Your task to perform on an android device: empty trash in the gmail app Image 0: 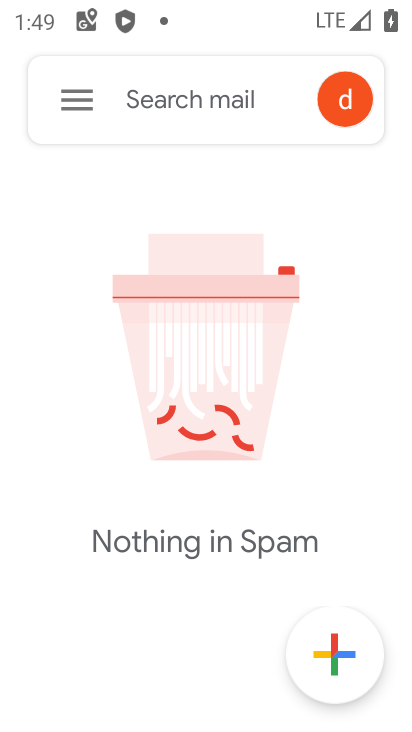
Step 0: press home button
Your task to perform on an android device: empty trash in the gmail app Image 1: 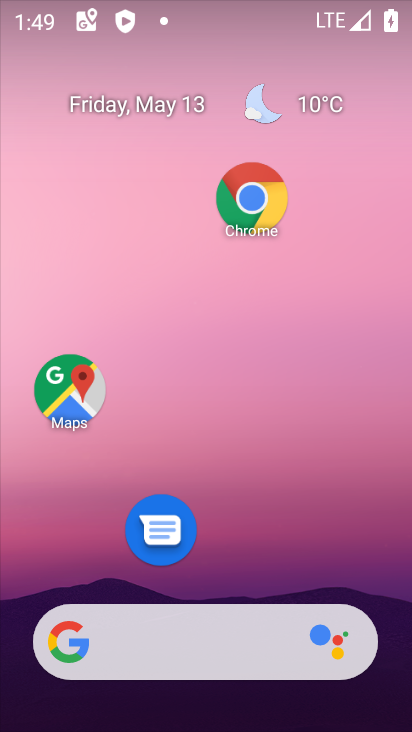
Step 1: drag from (197, 586) to (115, 0)
Your task to perform on an android device: empty trash in the gmail app Image 2: 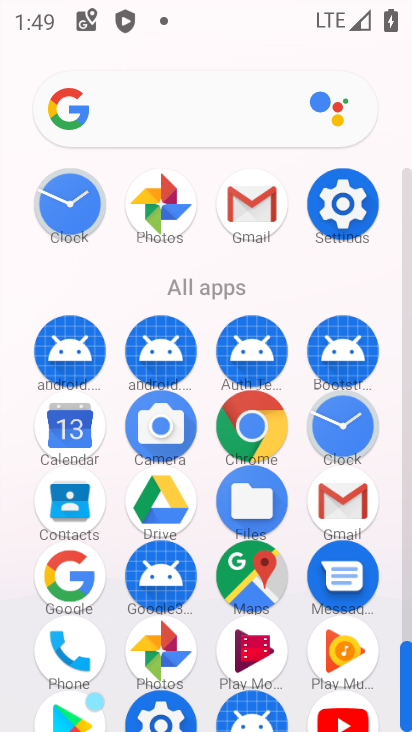
Step 2: click (328, 503)
Your task to perform on an android device: empty trash in the gmail app Image 3: 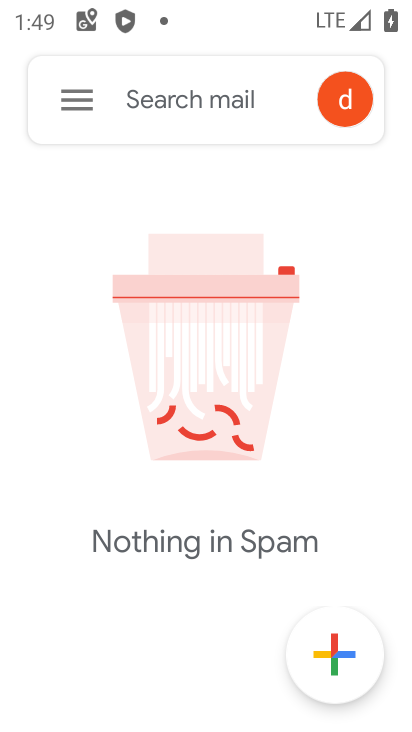
Step 3: click (64, 94)
Your task to perform on an android device: empty trash in the gmail app Image 4: 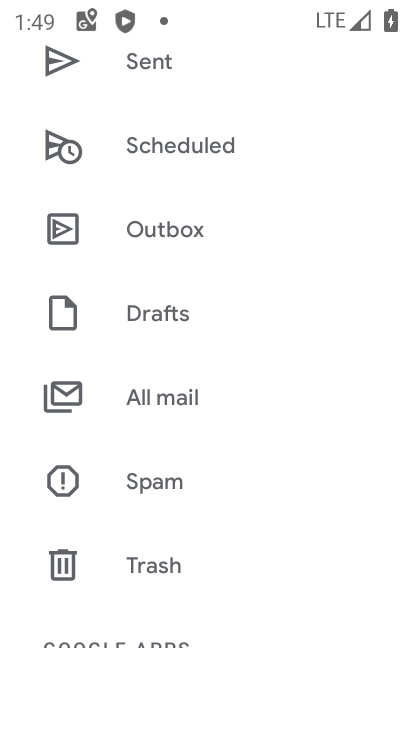
Step 4: drag from (163, 183) to (116, 46)
Your task to perform on an android device: empty trash in the gmail app Image 5: 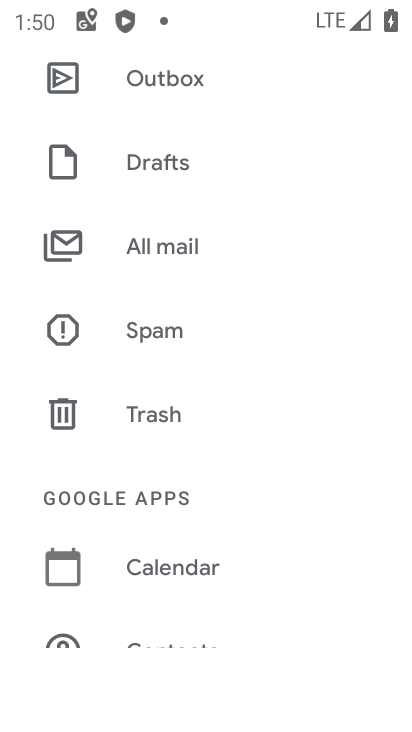
Step 5: click (165, 409)
Your task to perform on an android device: empty trash in the gmail app Image 6: 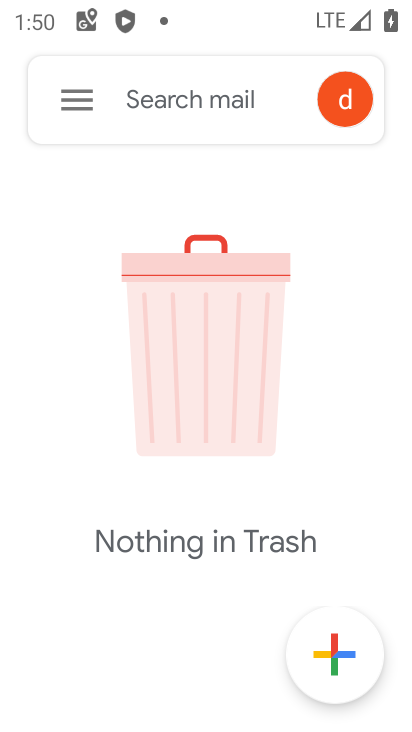
Step 6: task complete